Your task to perform on an android device: Open calendar and show me the third week of next month Image 0: 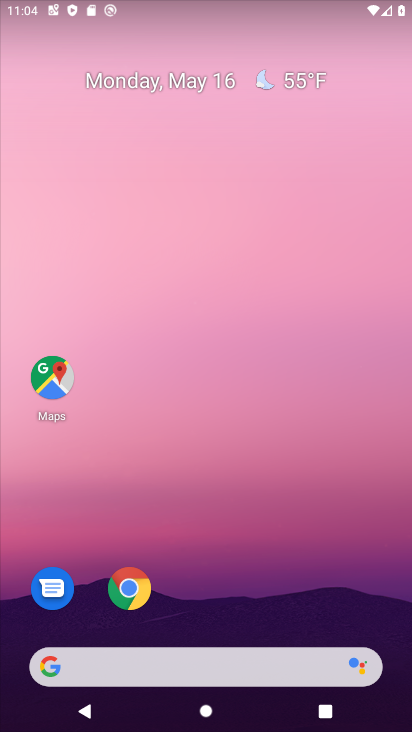
Step 0: drag from (351, 597) to (340, 122)
Your task to perform on an android device: Open calendar and show me the third week of next month Image 1: 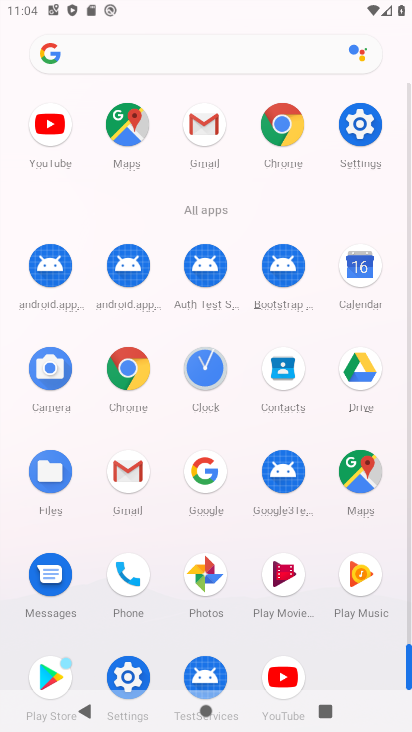
Step 1: click (363, 288)
Your task to perform on an android device: Open calendar and show me the third week of next month Image 2: 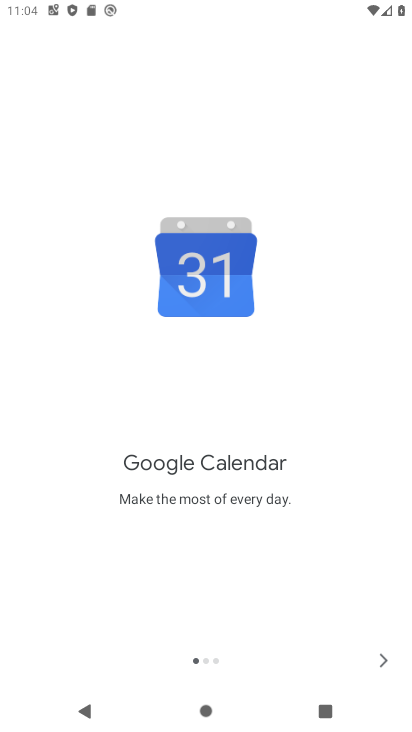
Step 2: click (378, 653)
Your task to perform on an android device: Open calendar and show me the third week of next month Image 3: 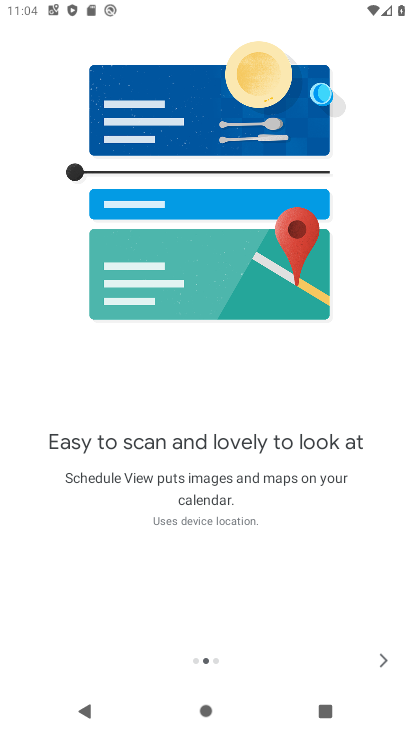
Step 3: click (378, 653)
Your task to perform on an android device: Open calendar and show me the third week of next month Image 4: 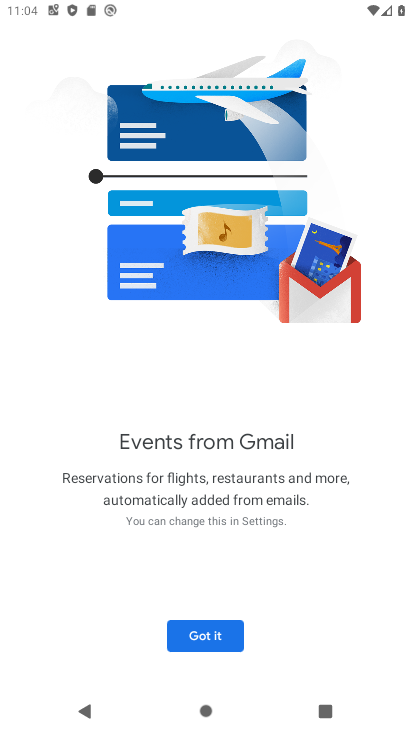
Step 4: click (224, 639)
Your task to perform on an android device: Open calendar and show me the third week of next month Image 5: 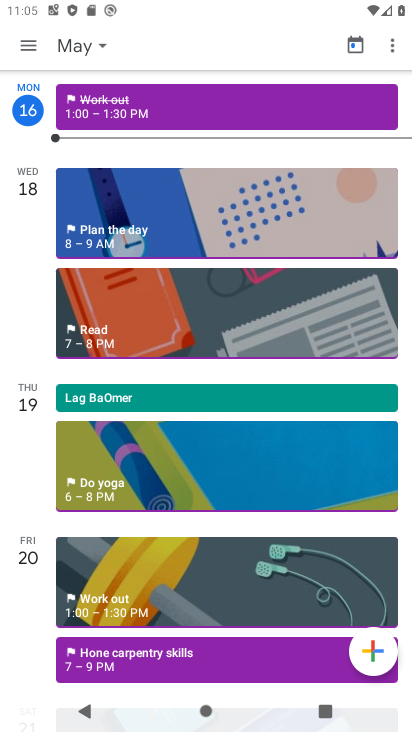
Step 5: click (97, 46)
Your task to perform on an android device: Open calendar and show me the third week of next month Image 6: 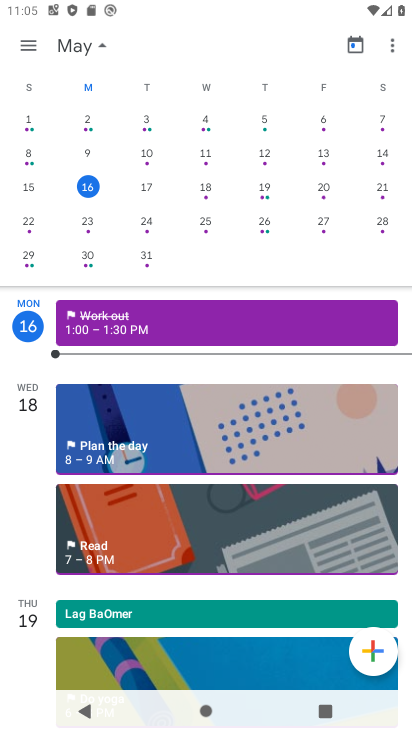
Step 6: drag from (390, 165) to (1, 151)
Your task to perform on an android device: Open calendar and show me the third week of next month Image 7: 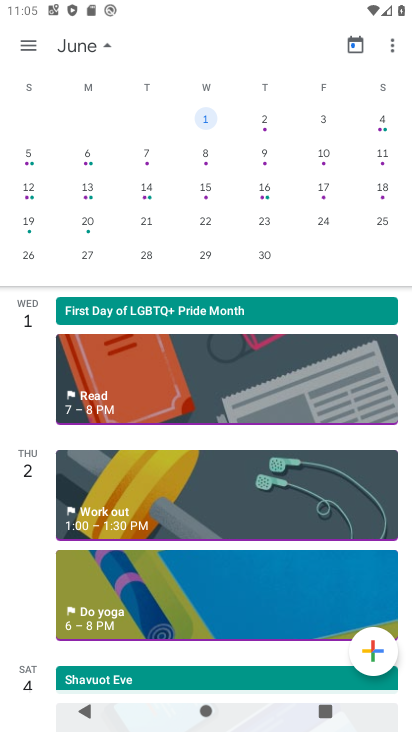
Step 7: click (141, 224)
Your task to perform on an android device: Open calendar and show me the third week of next month Image 8: 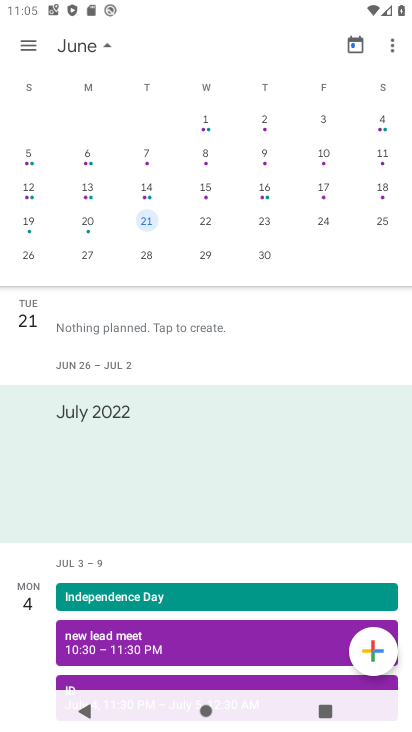
Step 8: task complete